Your task to perform on an android device: check data usage Image 0: 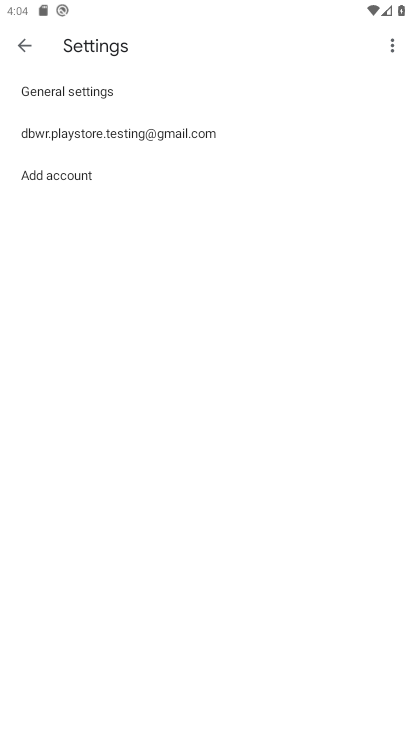
Step 0: press home button
Your task to perform on an android device: check data usage Image 1: 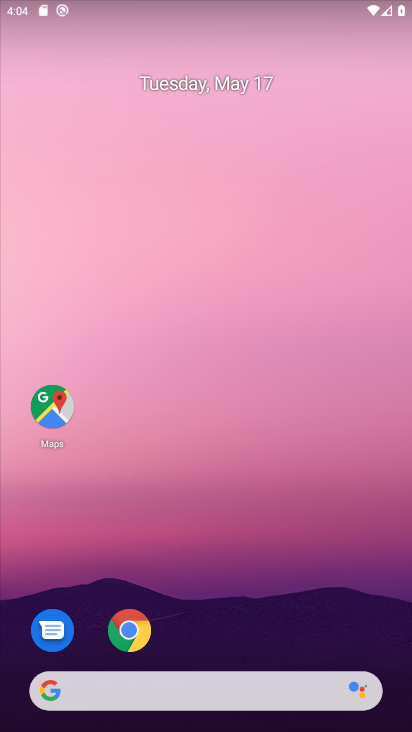
Step 1: drag from (325, 640) to (325, 163)
Your task to perform on an android device: check data usage Image 2: 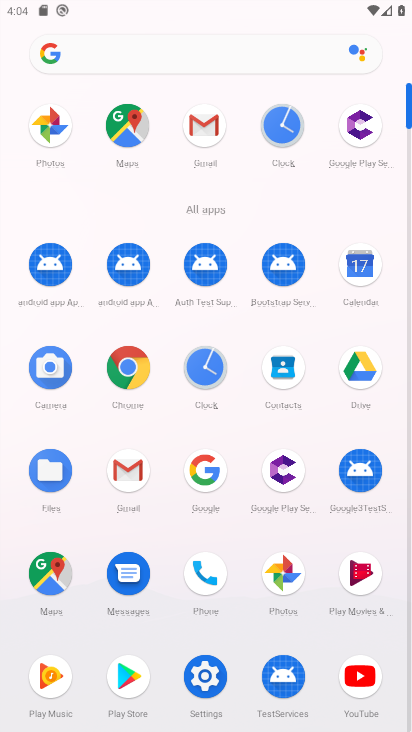
Step 2: click (409, 719)
Your task to perform on an android device: check data usage Image 3: 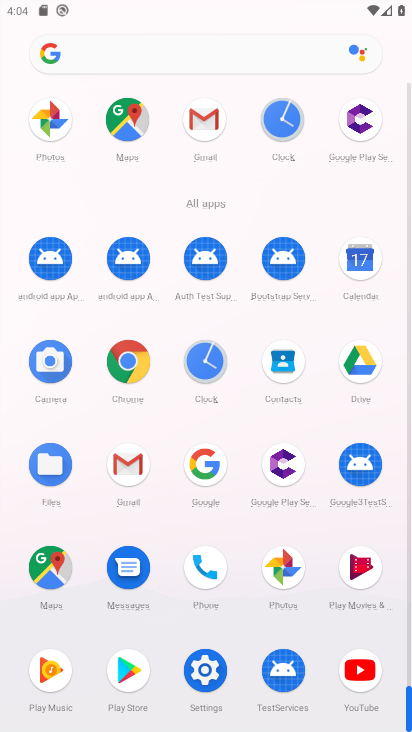
Step 3: click (204, 675)
Your task to perform on an android device: check data usage Image 4: 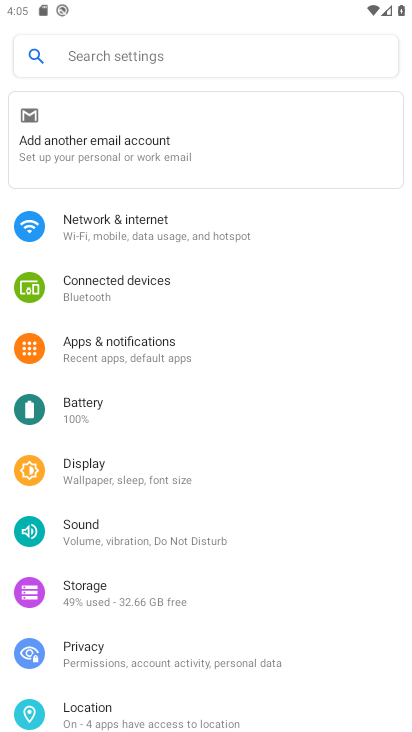
Step 4: click (117, 243)
Your task to perform on an android device: check data usage Image 5: 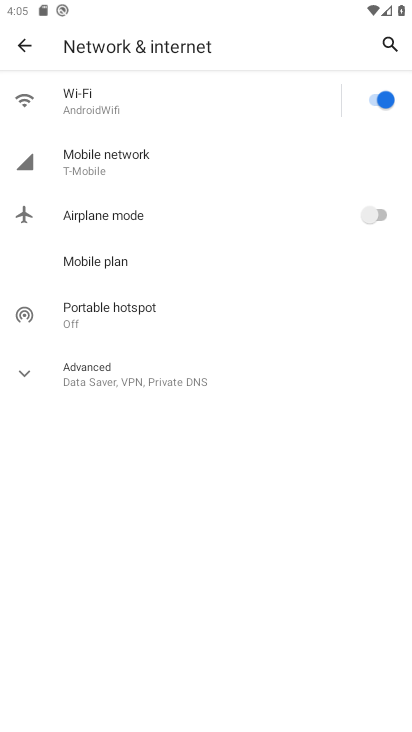
Step 5: click (105, 164)
Your task to perform on an android device: check data usage Image 6: 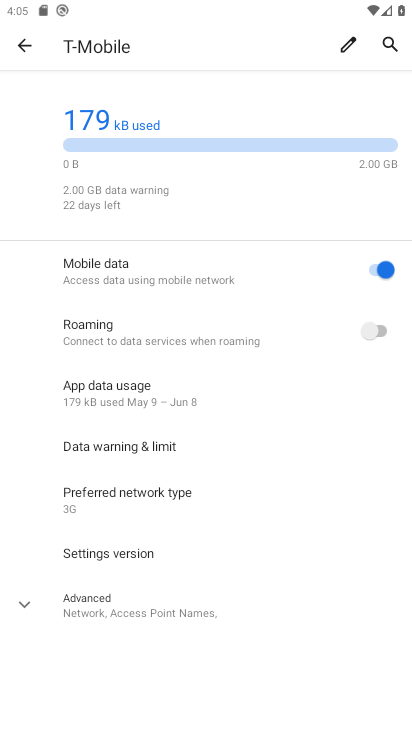
Step 6: task complete